Your task to perform on an android device: open device folders in google photos Image 0: 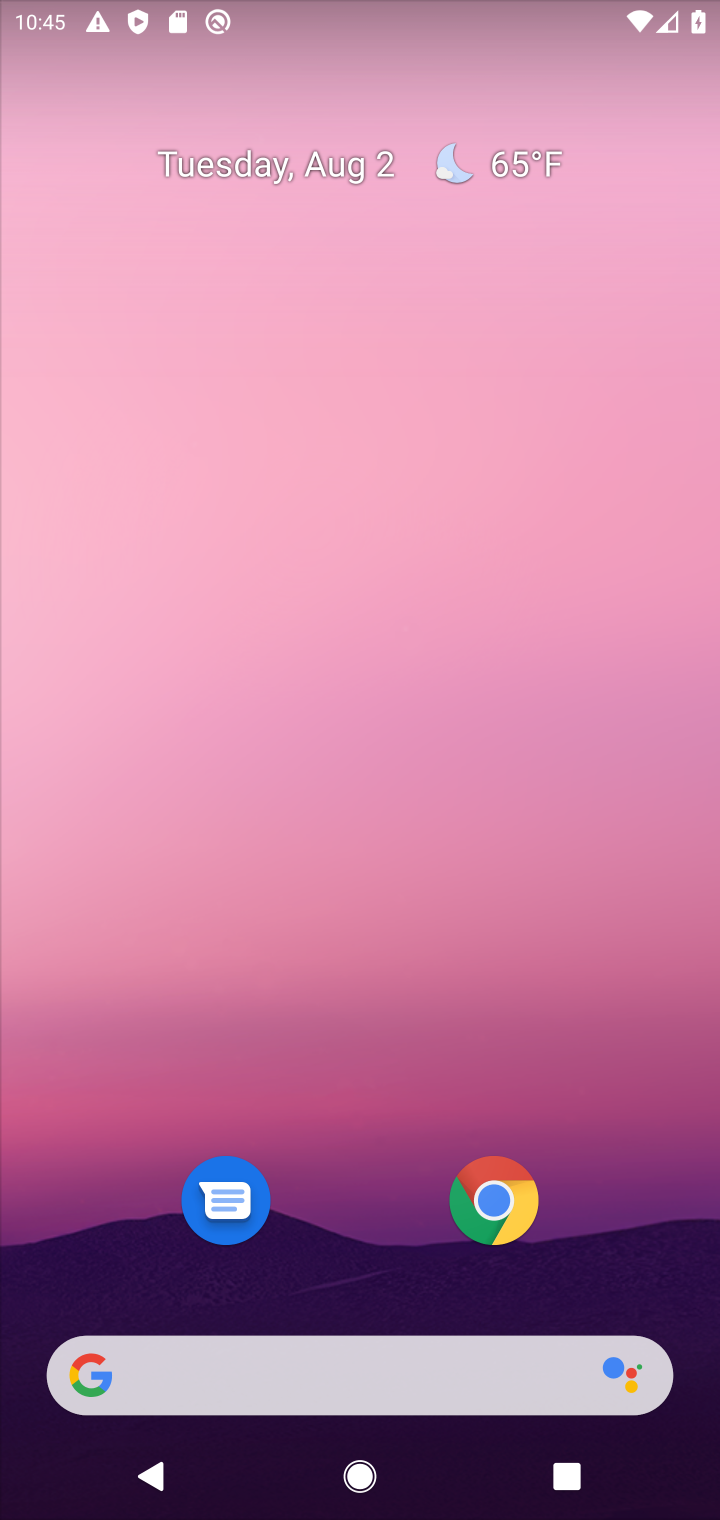
Step 0: drag from (629, 1257) to (542, 377)
Your task to perform on an android device: open device folders in google photos Image 1: 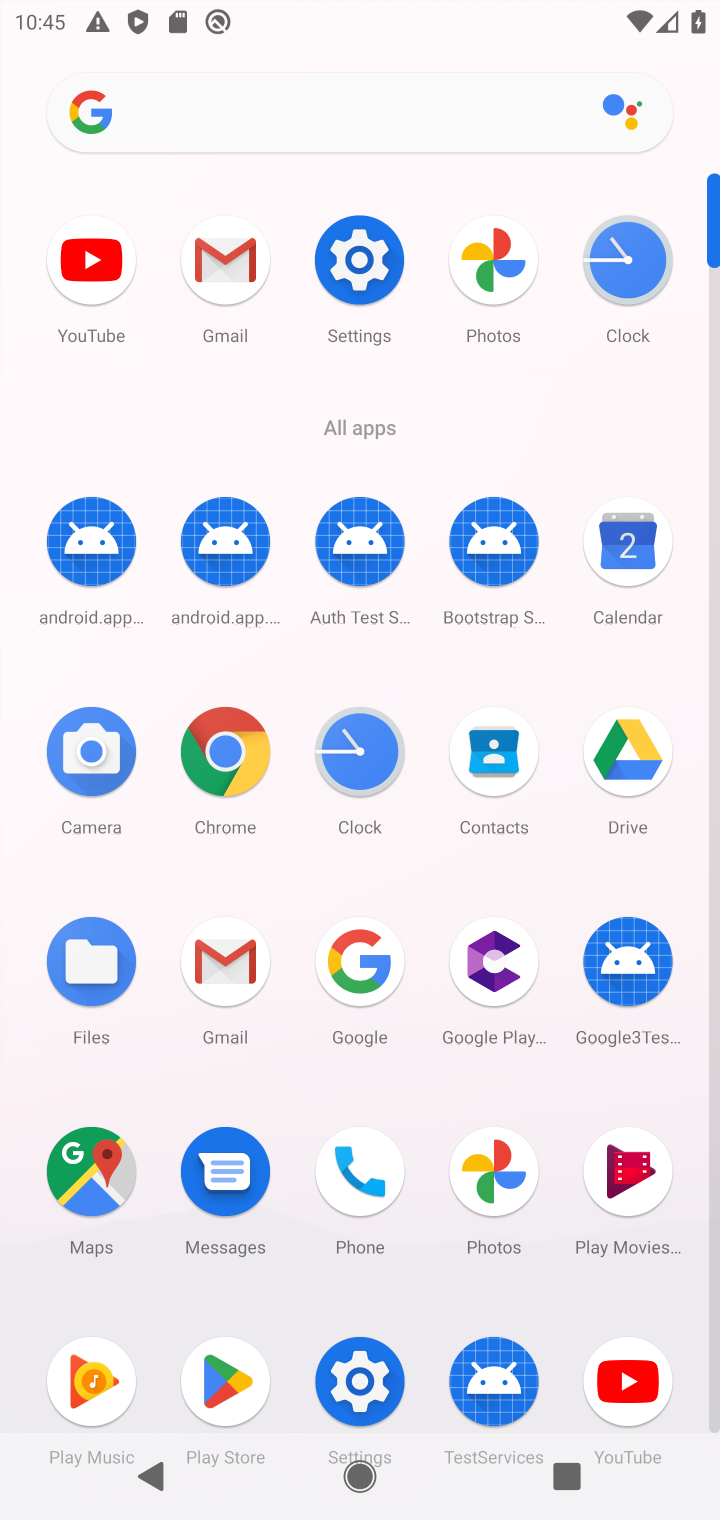
Step 1: click (496, 1168)
Your task to perform on an android device: open device folders in google photos Image 2: 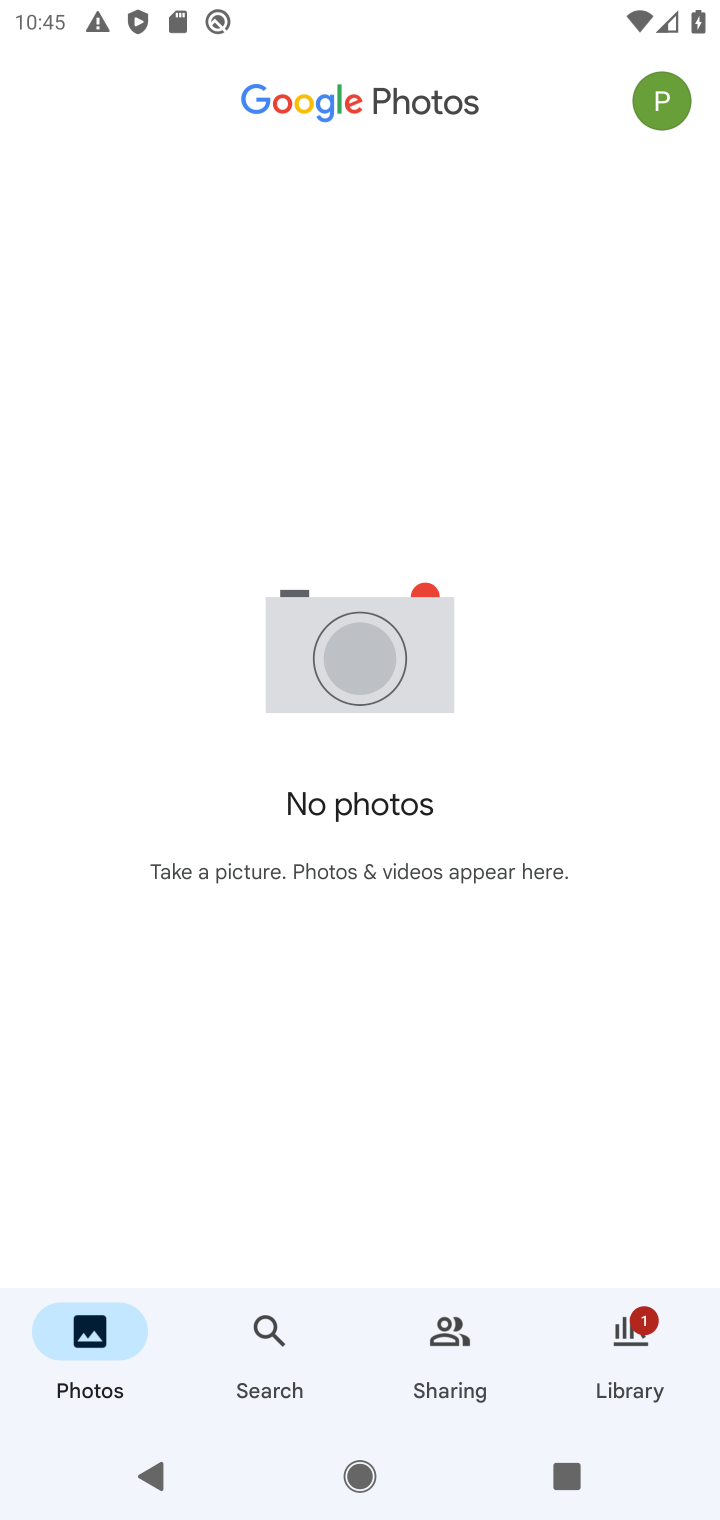
Step 2: click (637, 1325)
Your task to perform on an android device: open device folders in google photos Image 3: 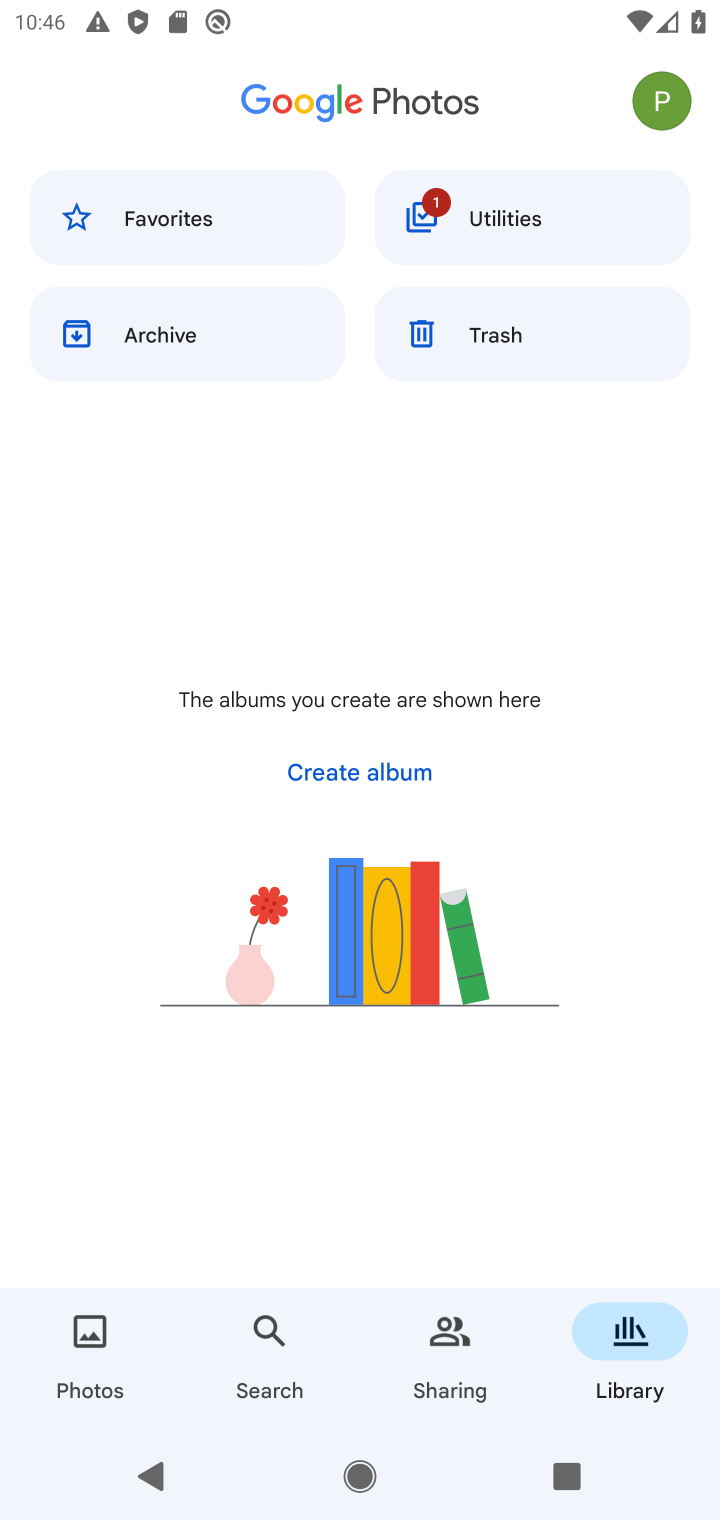
Step 3: task complete